Your task to perform on an android device: Install the Wikipedia app Image 0: 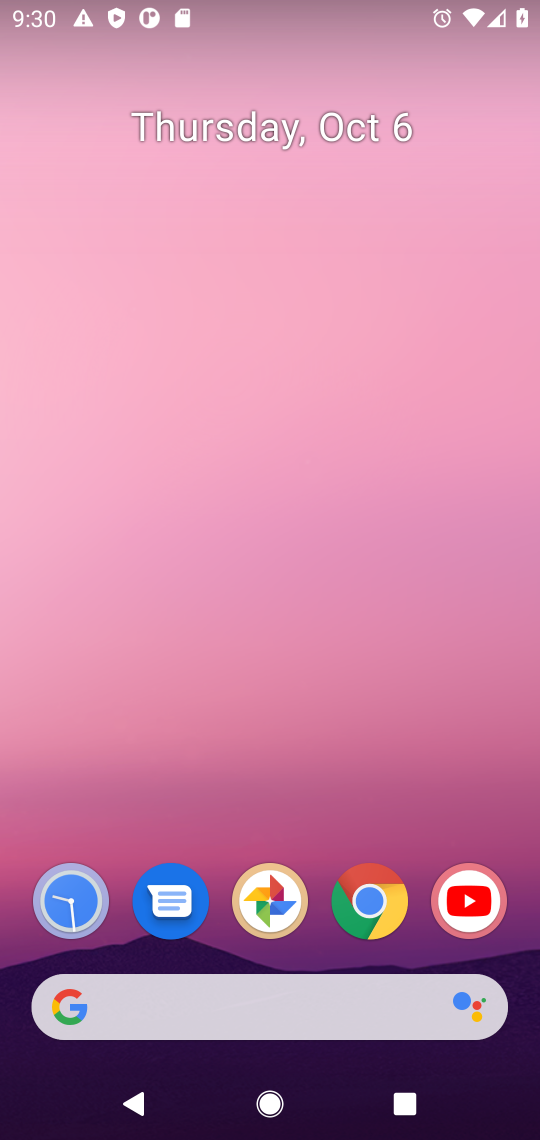
Step 0: task complete